Your task to perform on an android device: set the timer Image 0: 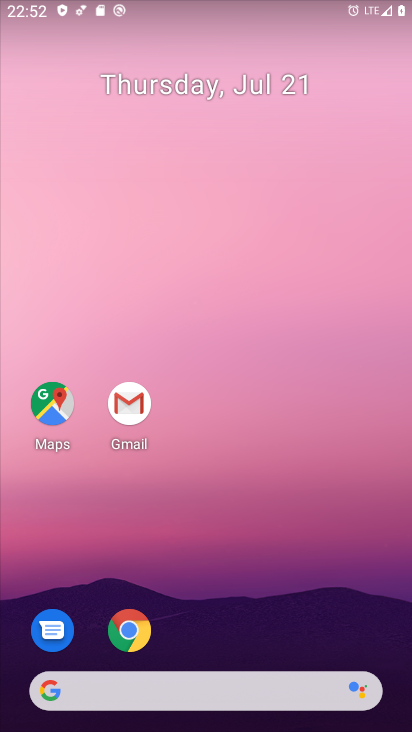
Step 0: drag from (243, 630) to (229, 211)
Your task to perform on an android device: set the timer Image 1: 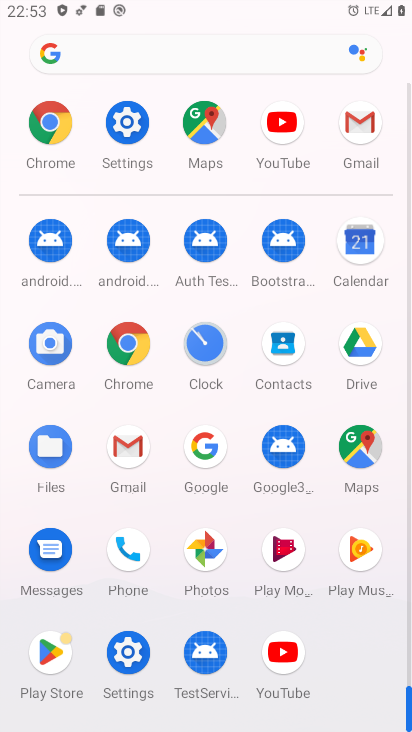
Step 1: click (206, 346)
Your task to perform on an android device: set the timer Image 2: 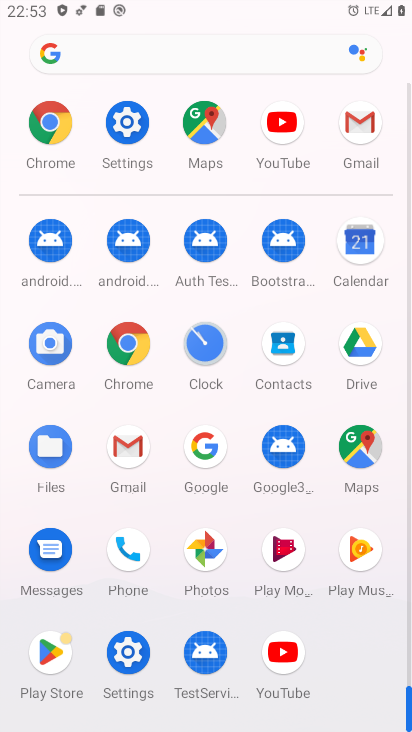
Step 2: click (206, 346)
Your task to perform on an android device: set the timer Image 3: 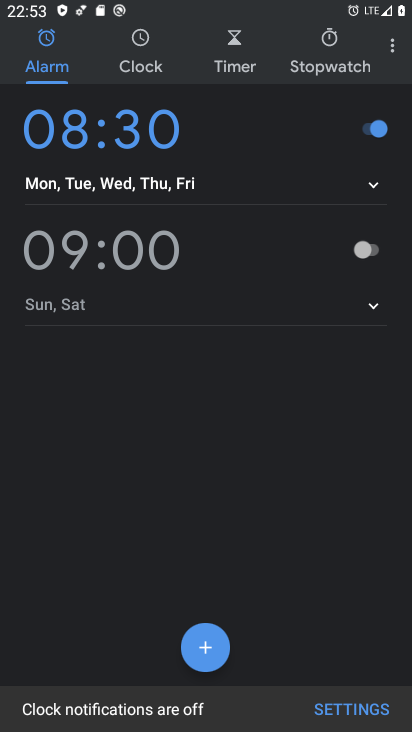
Step 3: click (238, 63)
Your task to perform on an android device: set the timer Image 4: 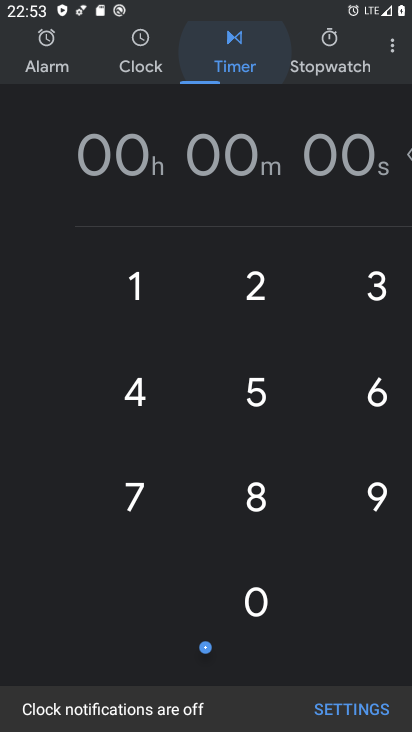
Step 4: click (238, 62)
Your task to perform on an android device: set the timer Image 5: 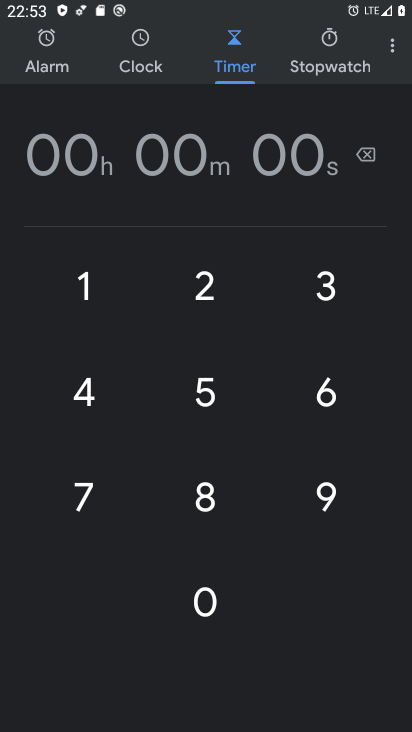
Step 5: click (197, 388)
Your task to perform on an android device: set the timer Image 6: 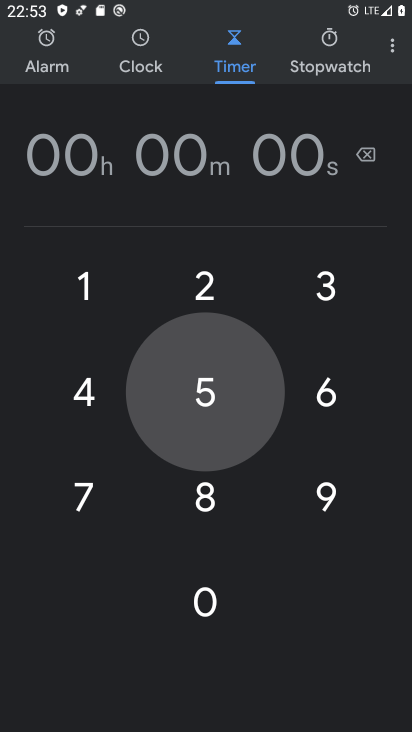
Step 6: click (200, 387)
Your task to perform on an android device: set the timer Image 7: 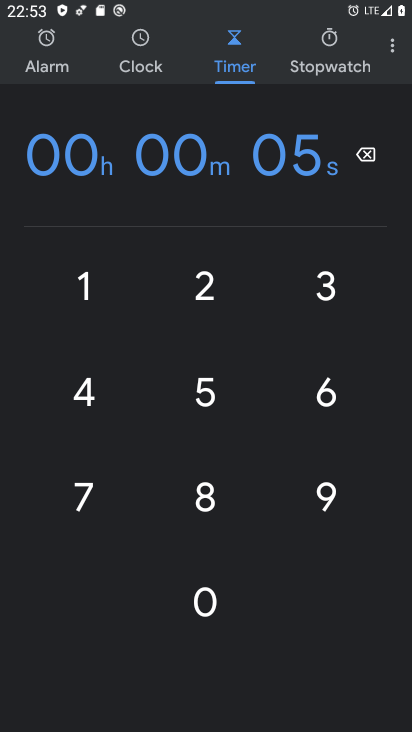
Step 7: click (201, 386)
Your task to perform on an android device: set the timer Image 8: 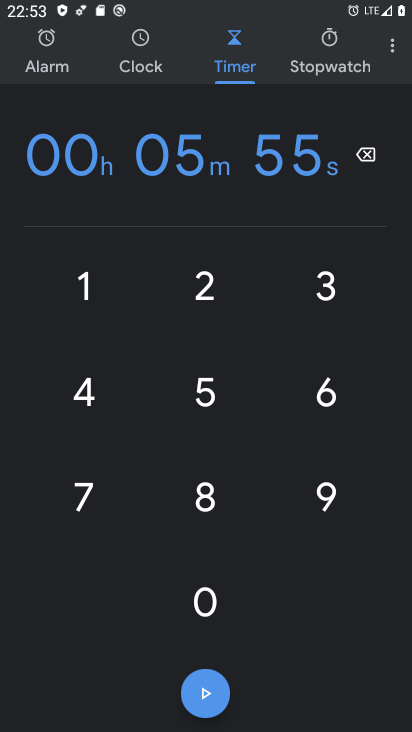
Step 8: click (198, 696)
Your task to perform on an android device: set the timer Image 9: 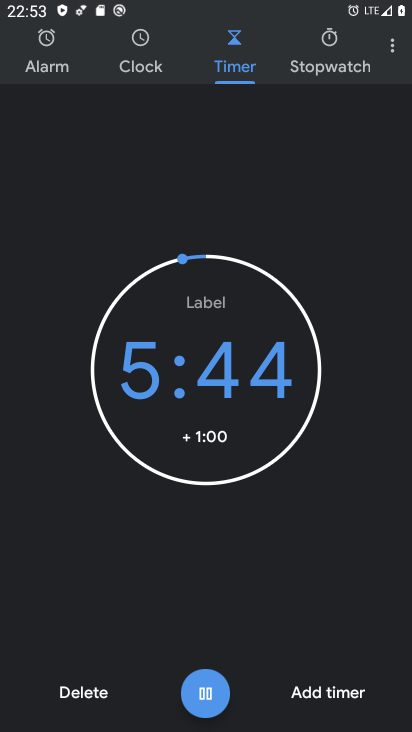
Step 9: click (201, 689)
Your task to perform on an android device: set the timer Image 10: 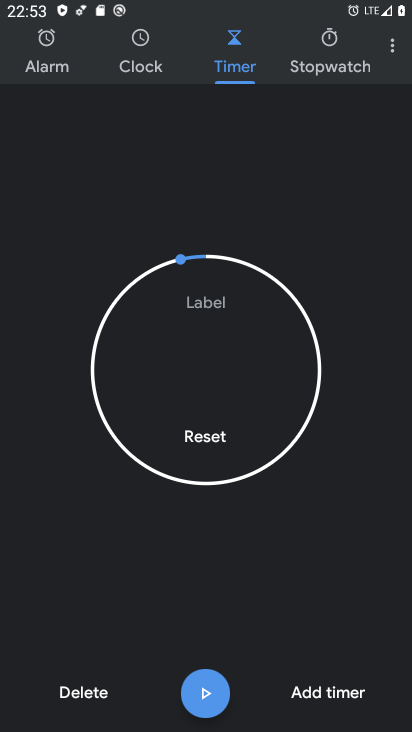
Step 10: task complete